Your task to perform on an android device: Go to display settings Image 0: 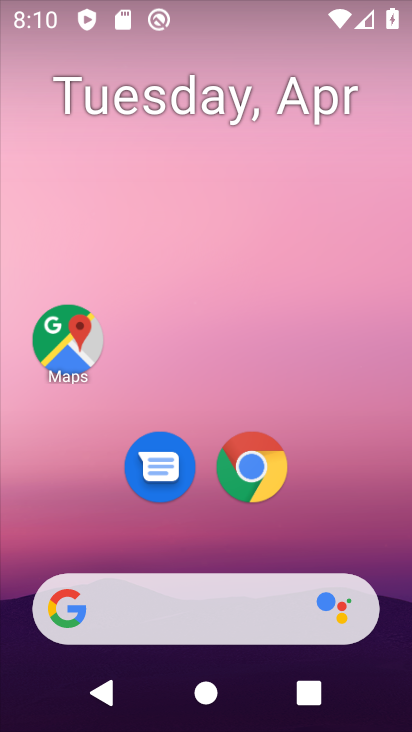
Step 0: drag from (369, 567) to (365, 0)
Your task to perform on an android device: Go to display settings Image 1: 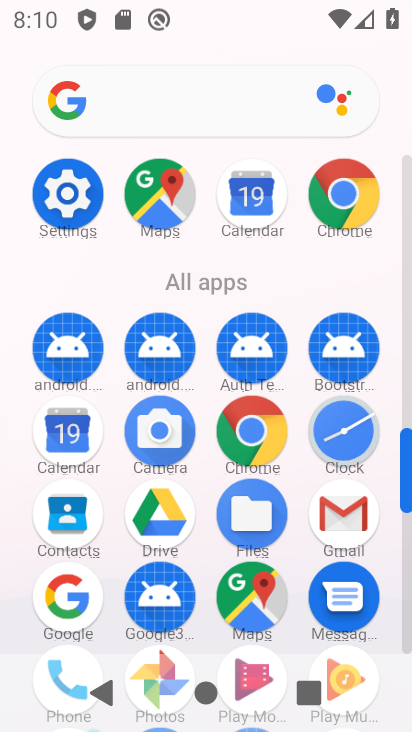
Step 1: click (81, 196)
Your task to perform on an android device: Go to display settings Image 2: 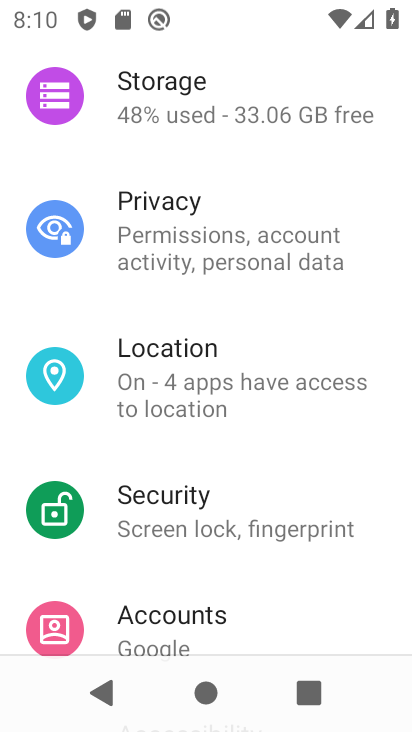
Step 2: drag from (325, 327) to (299, 582)
Your task to perform on an android device: Go to display settings Image 3: 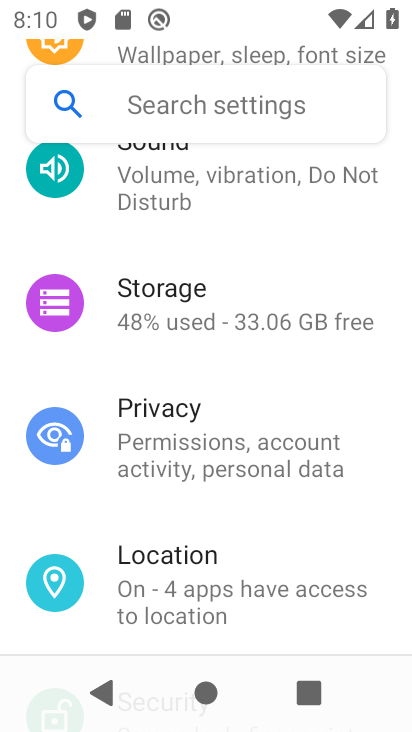
Step 3: drag from (318, 294) to (310, 523)
Your task to perform on an android device: Go to display settings Image 4: 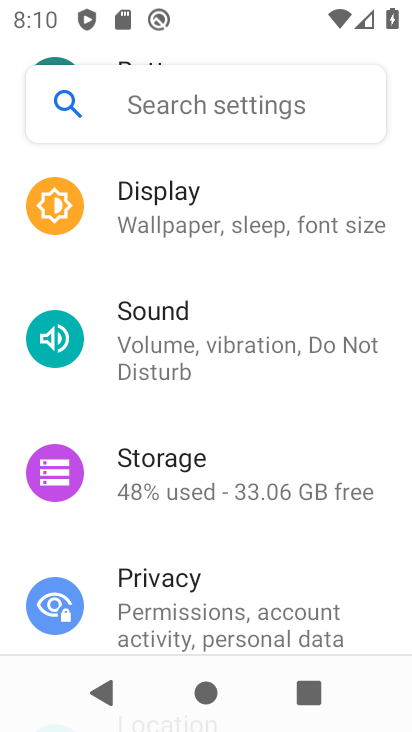
Step 4: click (182, 227)
Your task to perform on an android device: Go to display settings Image 5: 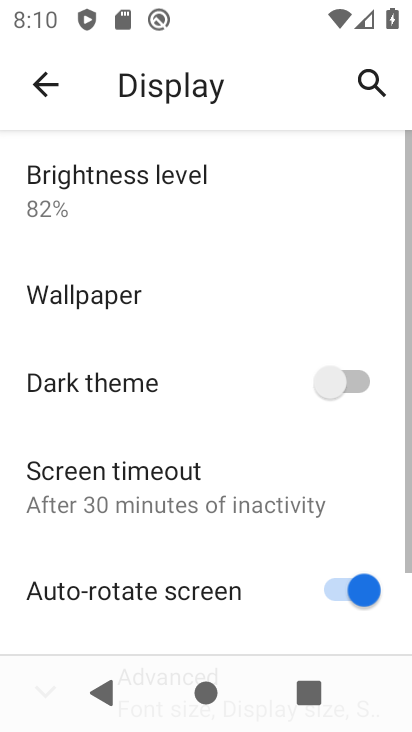
Step 5: task complete